Your task to perform on an android device: Do I have any events tomorrow? Image 0: 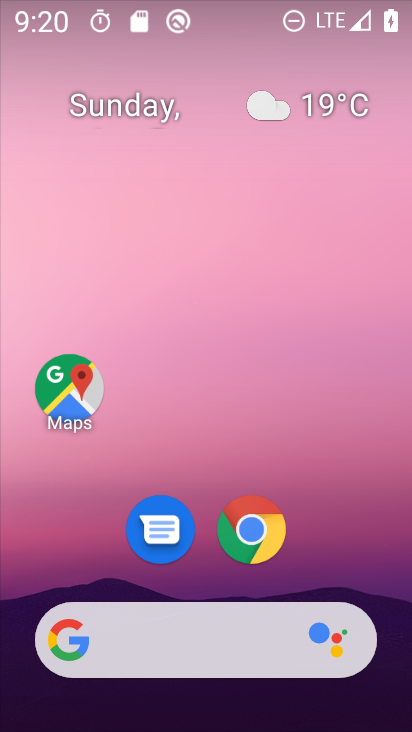
Step 0: drag from (210, 575) to (247, 0)
Your task to perform on an android device: Do I have any events tomorrow? Image 1: 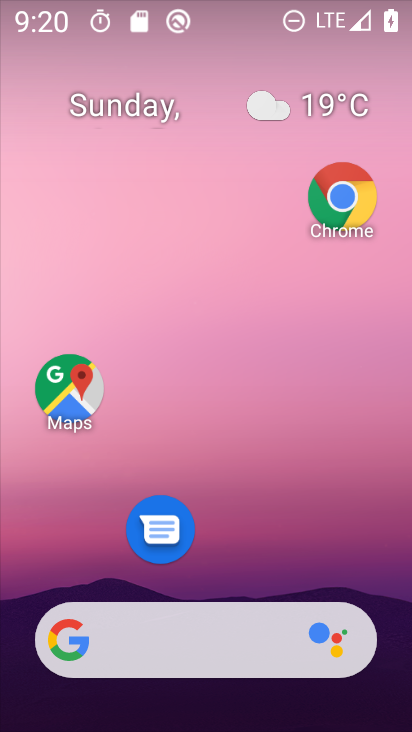
Step 1: drag from (232, 588) to (249, 17)
Your task to perform on an android device: Do I have any events tomorrow? Image 2: 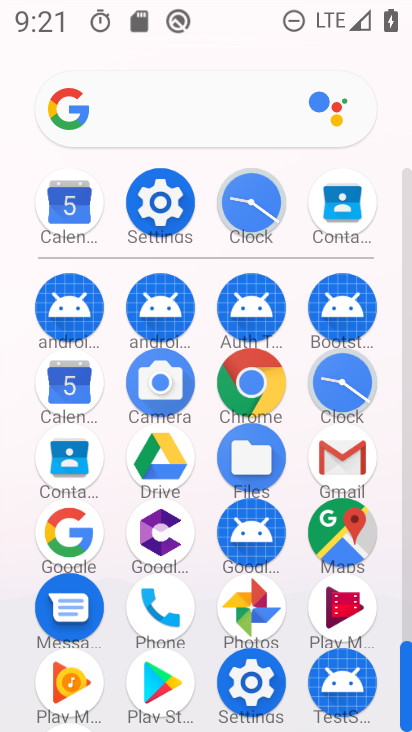
Step 2: click (71, 379)
Your task to perform on an android device: Do I have any events tomorrow? Image 3: 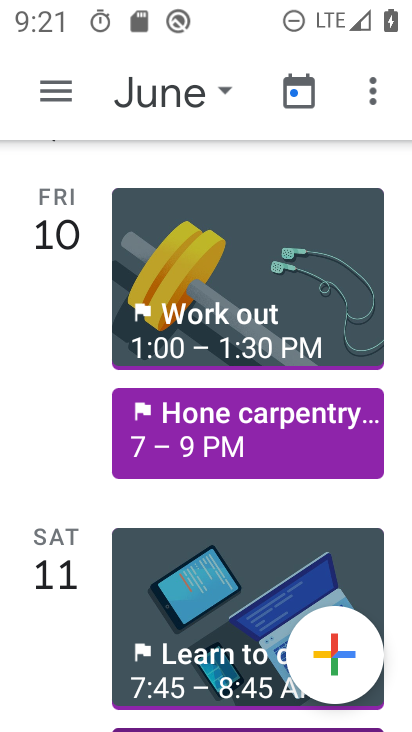
Step 3: click (58, 93)
Your task to perform on an android device: Do I have any events tomorrow? Image 4: 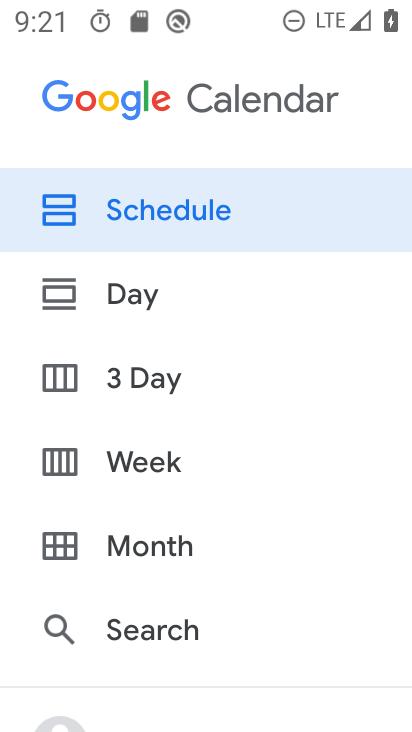
Step 4: click (91, 294)
Your task to perform on an android device: Do I have any events tomorrow? Image 5: 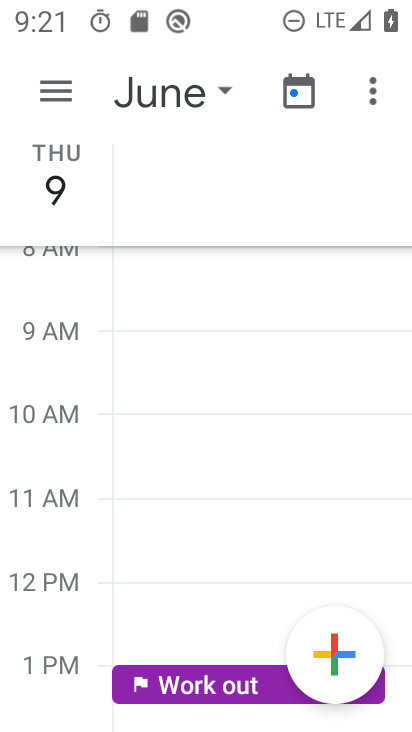
Step 5: click (59, 87)
Your task to perform on an android device: Do I have any events tomorrow? Image 6: 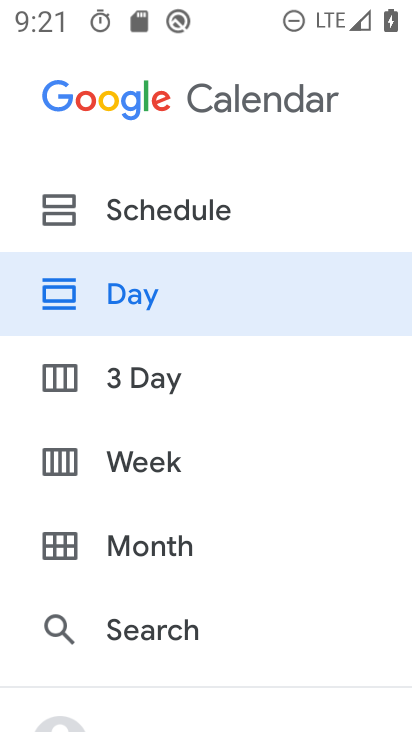
Step 6: drag from (167, 637) to (183, 153)
Your task to perform on an android device: Do I have any events tomorrow? Image 7: 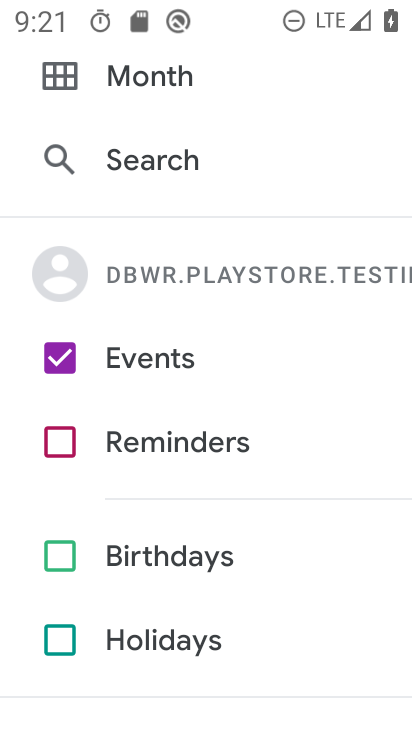
Step 7: drag from (162, 125) to (129, 726)
Your task to perform on an android device: Do I have any events tomorrow? Image 8: 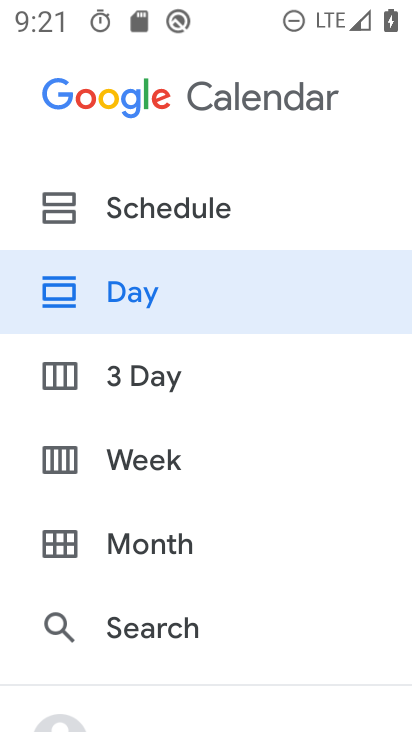
Step 8: click (93, 197)
Your task to perform on an android device: Do I have any events tomorrow? Image 9: 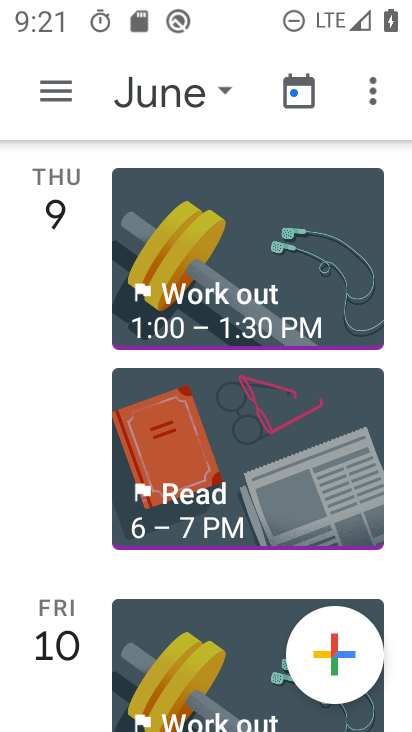
Step 9: drag from (71, 200) to (72, 675)
Your task to perform on an android device: Do I have any events tomorrow? Image 10: 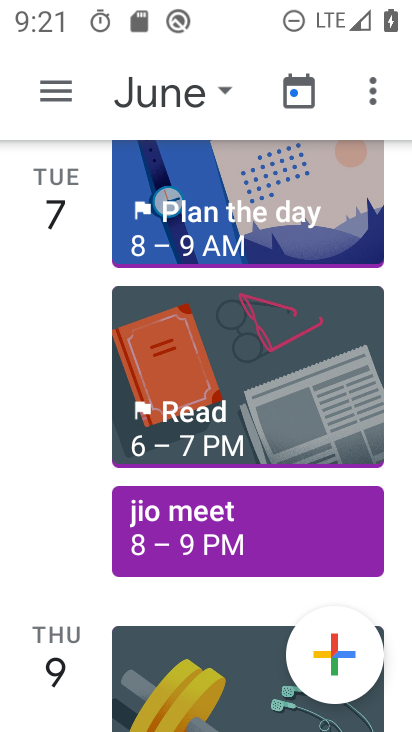
Step 10: drag from (76, 199) to (112, 643)
Your task to perform on an android device: Do I have any events tomorrow? Image 11: 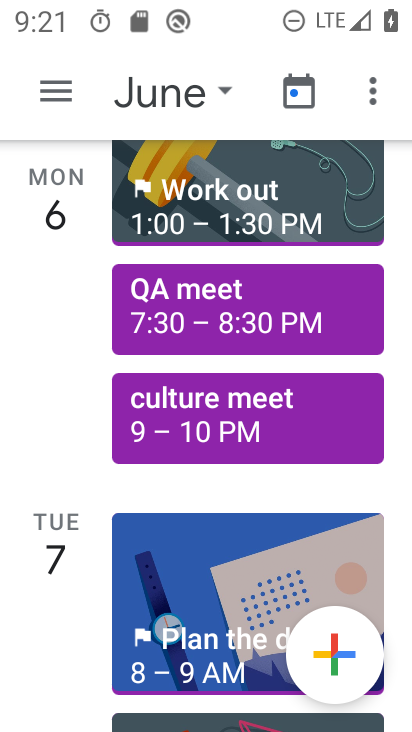
Step 11: drag from (72, 198) to (90, 668)
Your task to perform on an android device: Do I have any events tomorrow? Image 12: 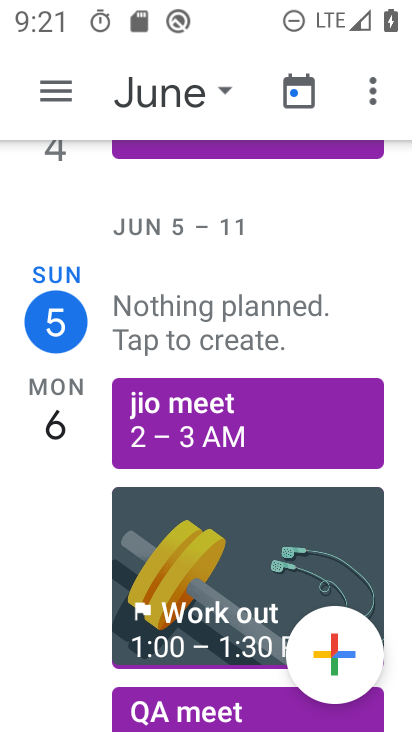
Step 12: click (93, 321)
Your task to perform on an android device: Do I have any events tomorrow? Image 13: 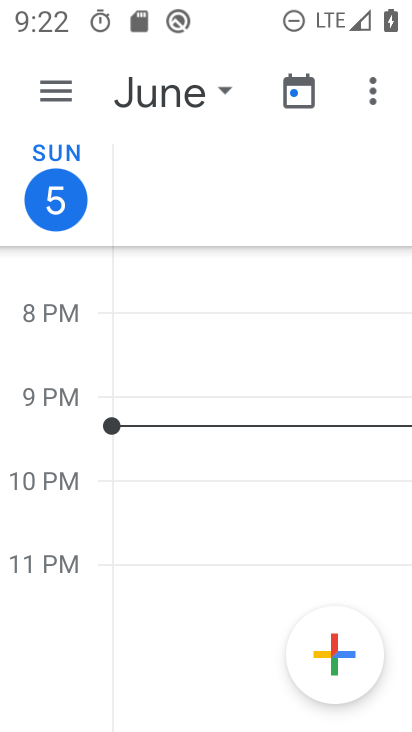
Step 13: click (85, 202)
Your task to perform on an android device: Do I have any events tomorrow? Image 14: 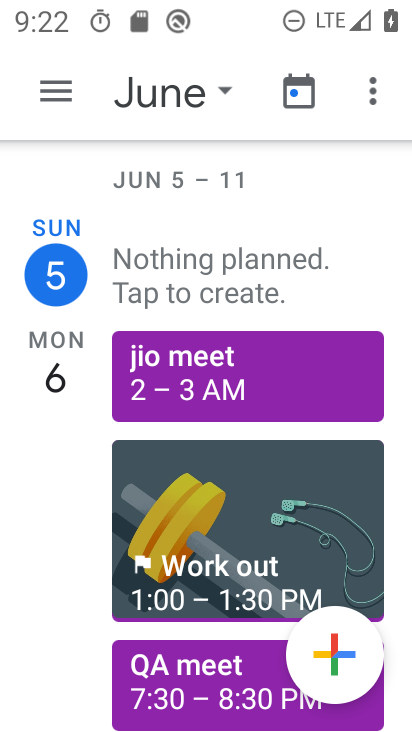
Step 14: click (82, 372)
Your task to perform on an android device: Do I have any events tomorrow? Image 15: 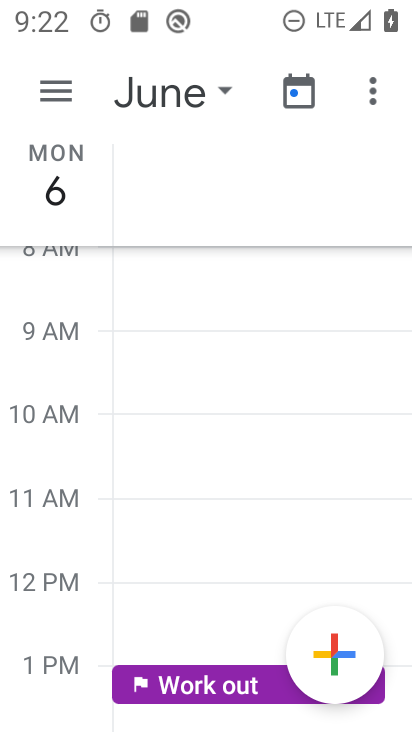
Step 15: task complete